Your task to perform on an android device: What's on my calendar today? Image 0: 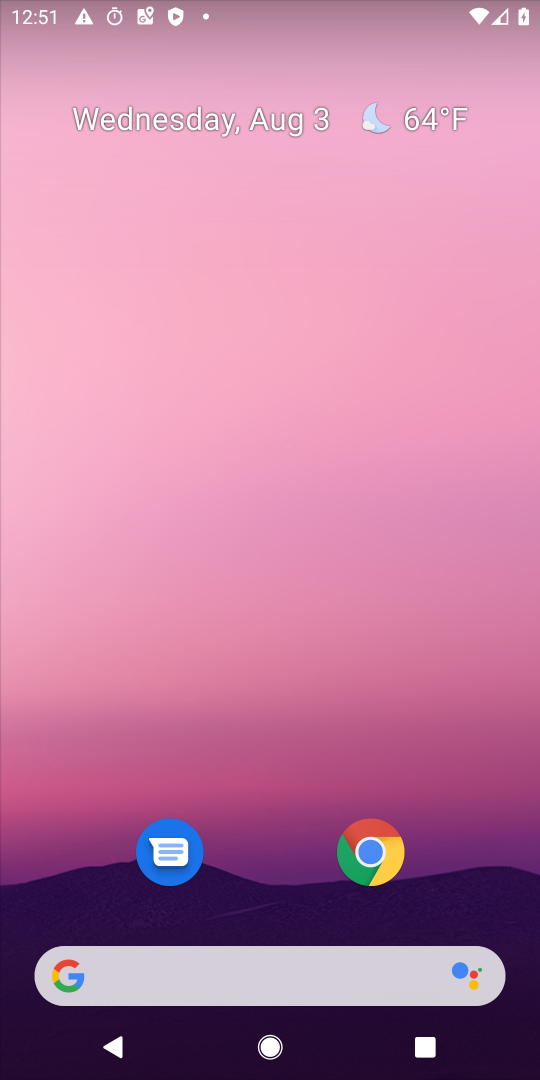
Step 0: drag from (478, 885) to (316, 201)
Your task to perform on an android device: What's on my calendar today? Image 1: 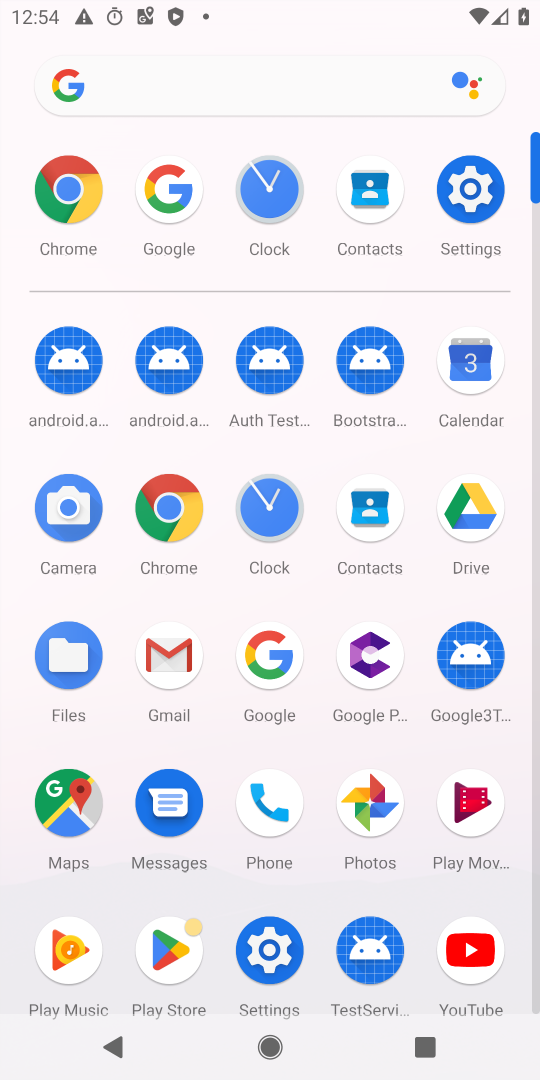
Step 1: click (482, 373)
Your task to perform on an android device: What's on my calendar today? Image 2: 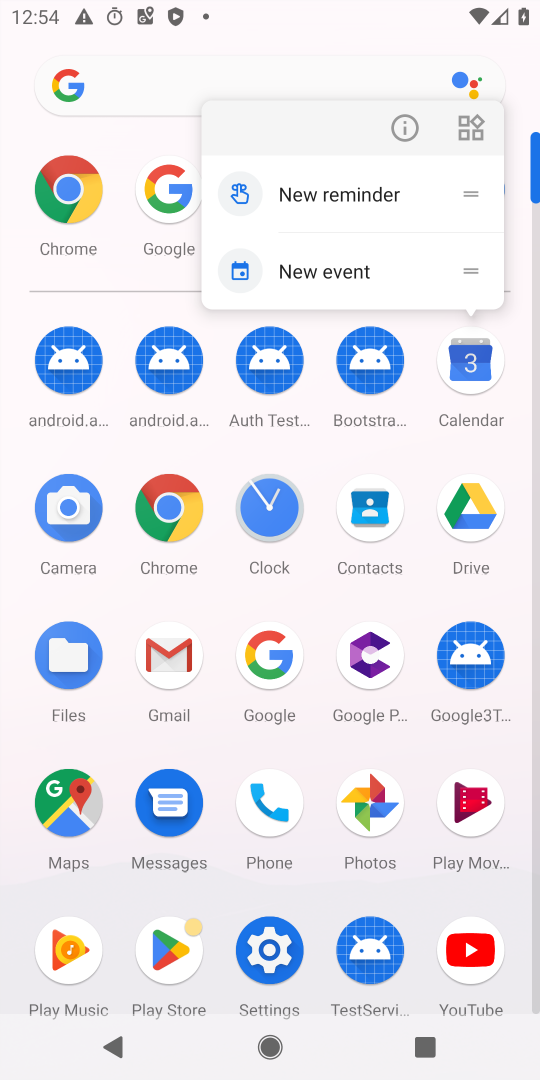
Step 2: click (482, 373)
Your task to perform on an android device: What's on my calendar today? Image 3: 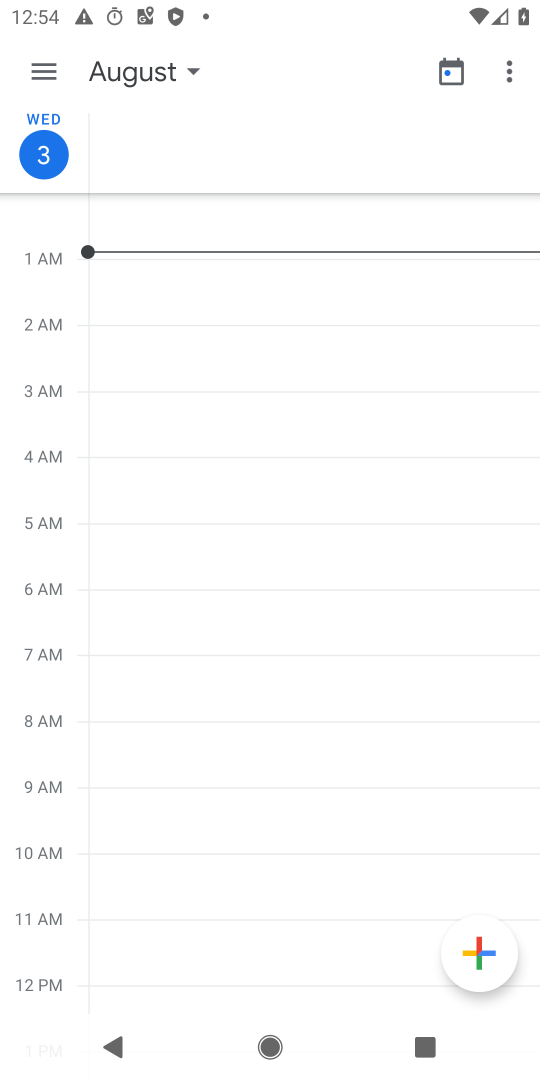
Step 3: task complete